Your task to perform on an android device: toggle show notifications on the lock screen Image 0: 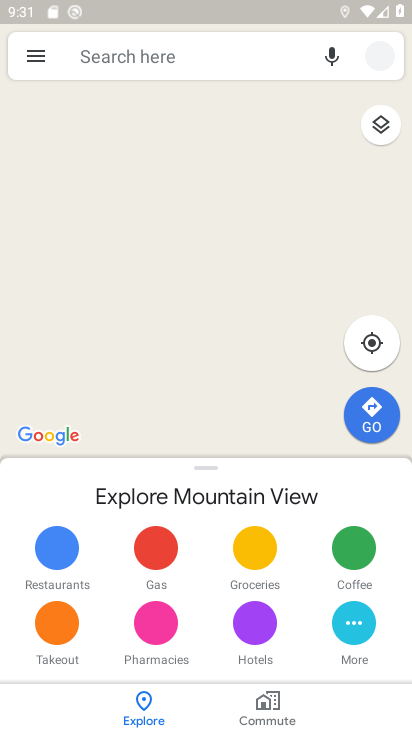
Step 0: press home button
Your task to perform on an android device: toggle show notifications on the lock screen Image 1: 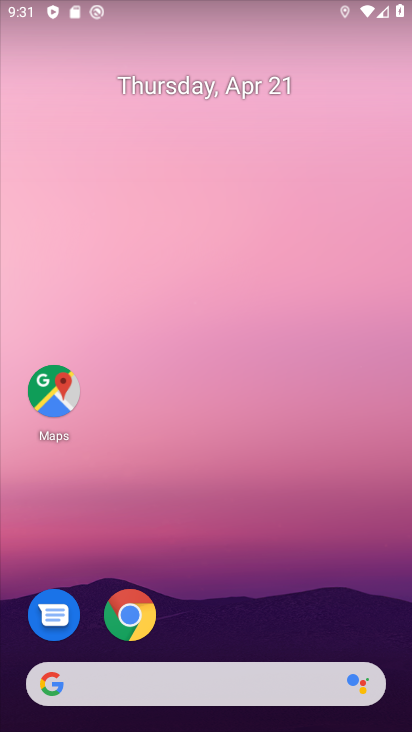
Step 1: drag from (218, 661) to (220, 215)
Your task to perform on an android device: toggle show notifications on the lock screen Image 2: 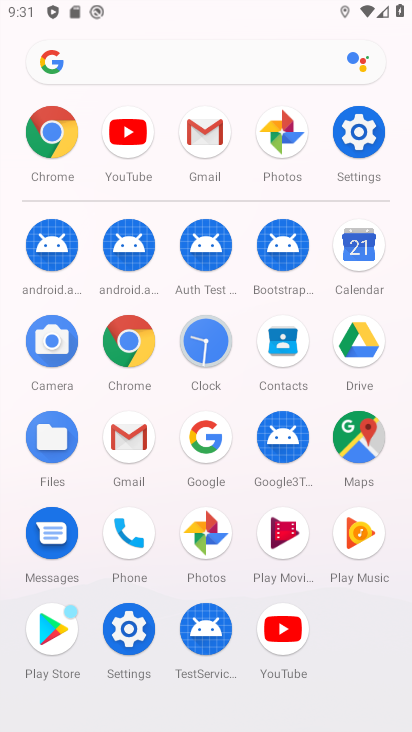
Step 2: click (359, 126)
Your task to perform on an android device: toggle show notifications on the lock screen Image 3: 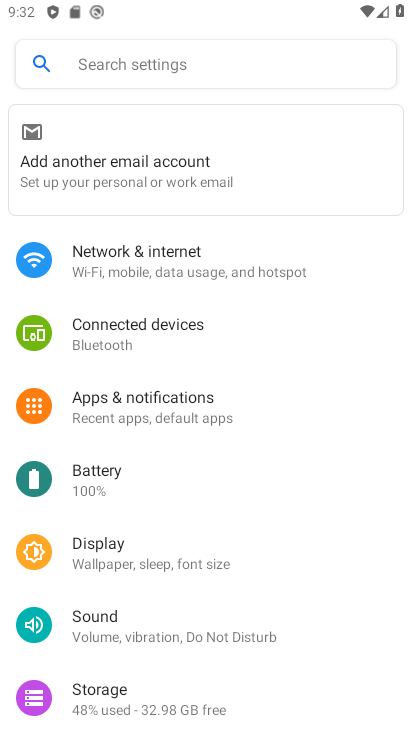
Step 3: click (129, 410)
Your task to perform on an android device: toggle show notifications on the lock screen Image 4: 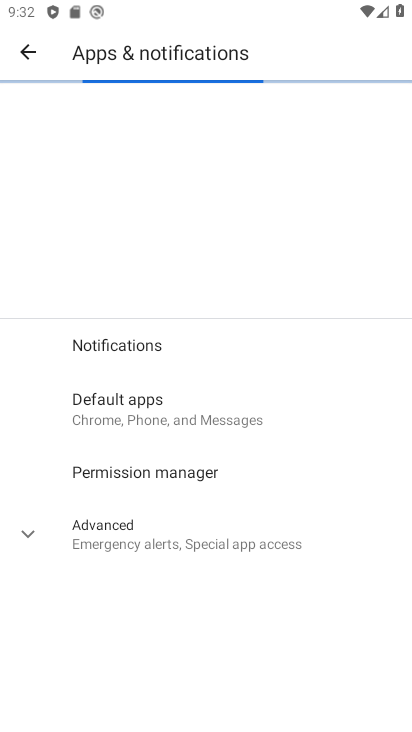
Step 4: drag from (136, 405) to (246, 132)
Your task to perform on an android device: toggle show notifications on the lock screen Image 5: 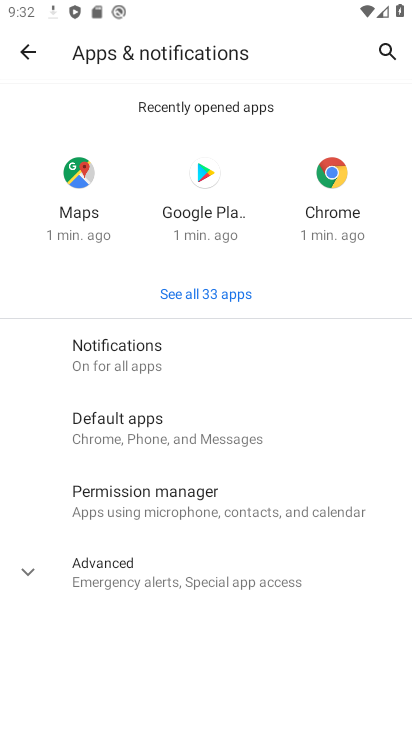
Step 5: click (103, 349)
Your task to perform on an android device: toggle show notifications on the lock screen Image 6: 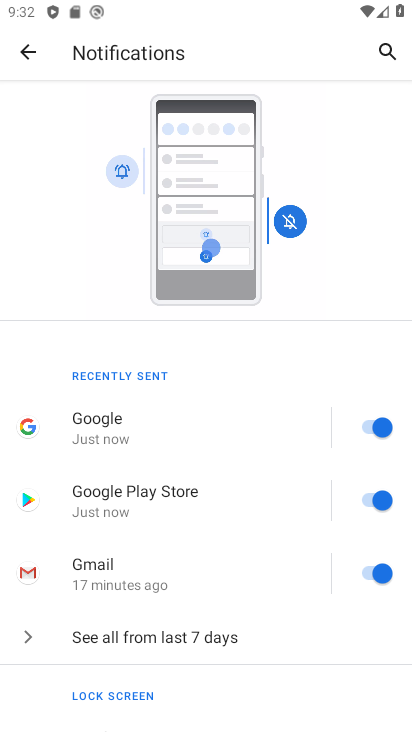
Step 6: drag from (185, 695) to (187, 284)
Your task to perform on an android device: toggle show notifications on the lock screen Image 7: 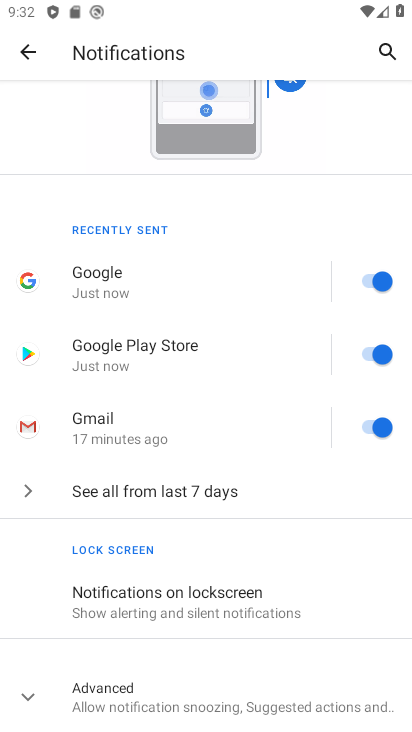
Step 7: click (173, 603)
Your task to perform on an android device: toggle show notifications on the lock screen Image 8: 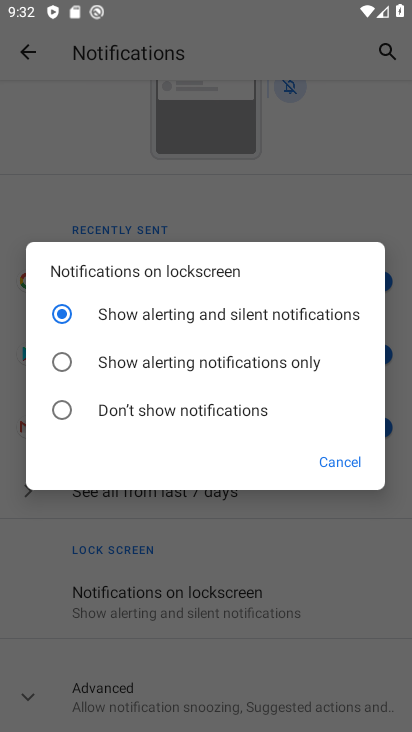
Step 8: click (60, 410)
Your task to perform on an android device: toggle show notifications on the lock screen Image 9: 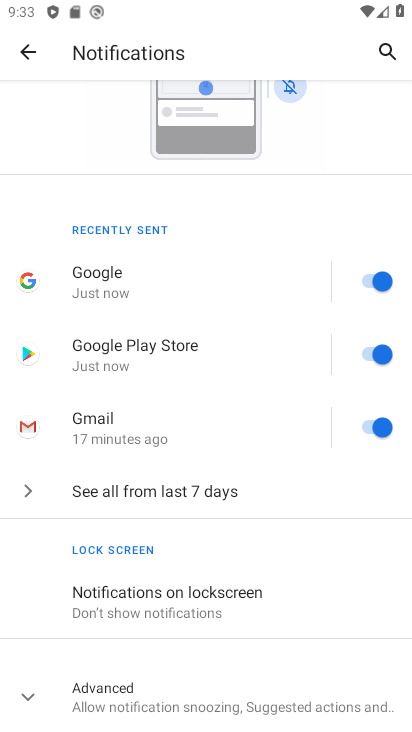
Step 9: task complete